Your task to perform on an android device: change text size in settings app Image 0: 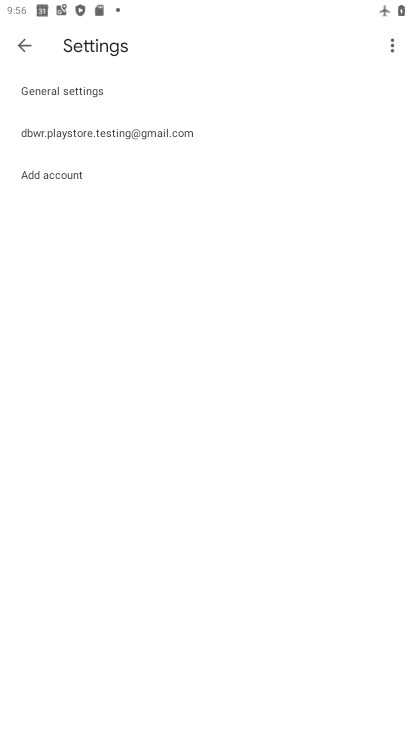
Step 0: press home button
Your task to perform on an android device: change text size in settings app Image 1: 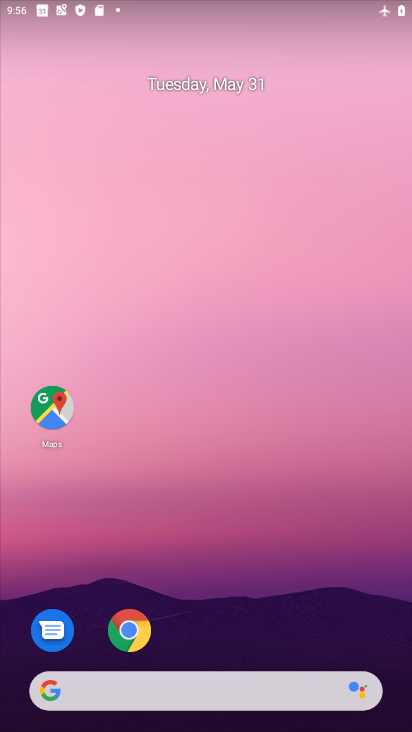
Step 1: drag from (229, 481) to (229, 192)
Your task to perform on an android device: change text size in settings app Image 2: 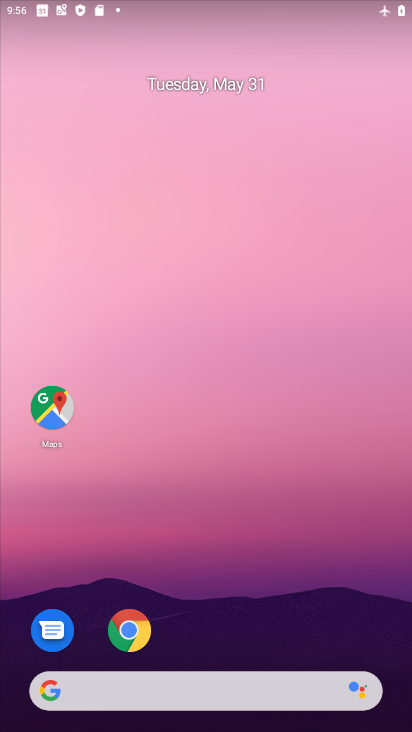
Step 2: drag from (251, 477) to (249, 183)
Your task to perform on an android device: change text size in settings app Image 3: 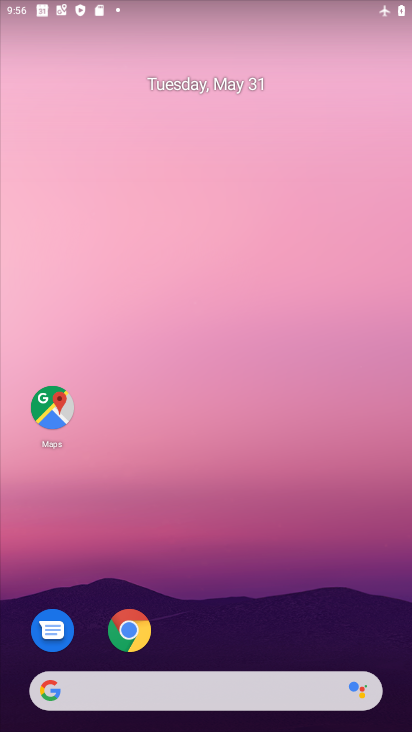
Step 3: drag from (236, 645) to (267, 144)
Your task to perform on an android device: change text size in settings app Image 4: 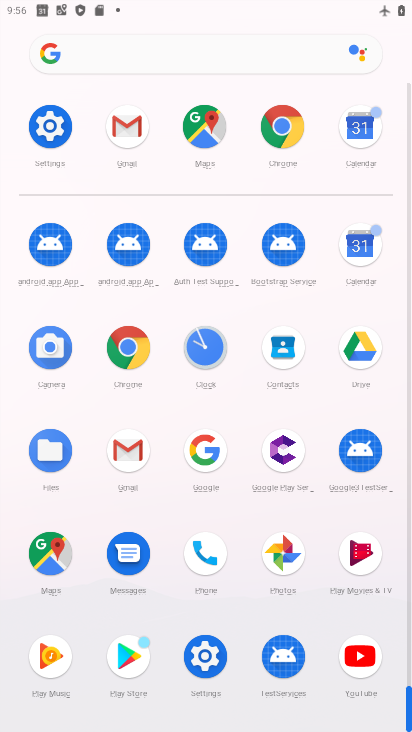
Step 4: click (202, 648)
Your task to perform on an android device: change text size in settings app Image 5: 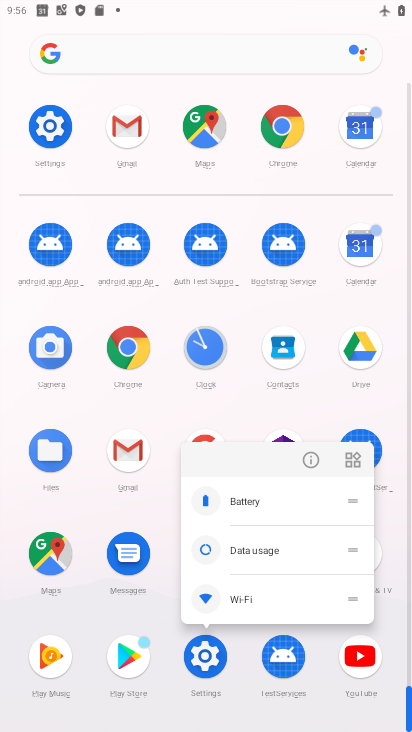
Step 5: click (198, 648)
Your task to perform on an android device: change text size in settings app Image 6: 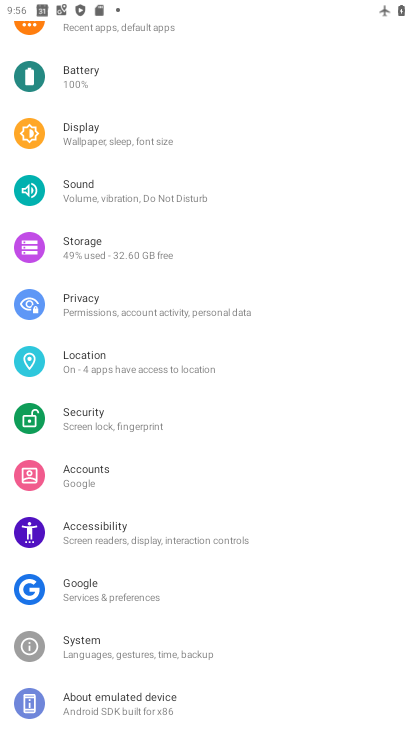
Step 6: click (143, 535)
Your task to perform on an android device: change text size in settings app Image 7: 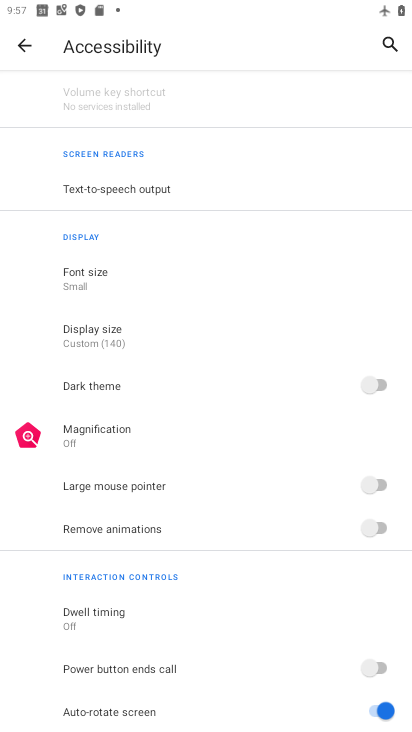
Step 7: drag from (205, 615) to (230, 290)
Your task to perform on an android device: change text size in settings app Image 8: 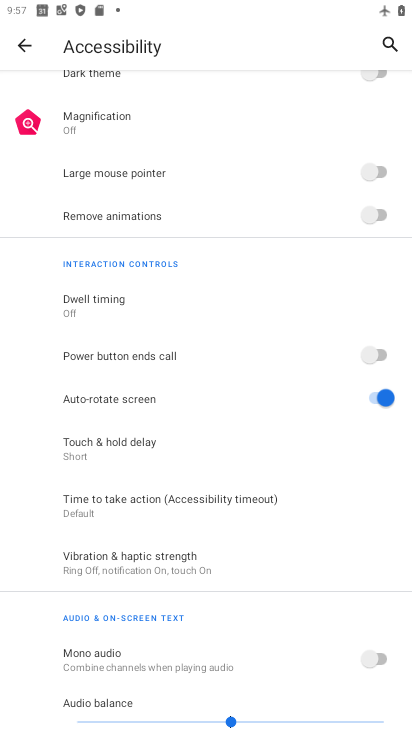
Step 8: click (31, 52)
Your task to perform on an android device: change text size in settings app Image 9: 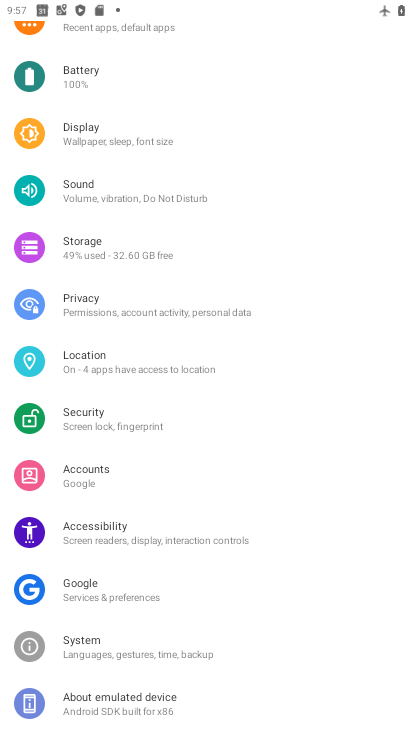
Step 9: click (138, 313)
Your task to perform on an android device: change text size in settings app Image 10: 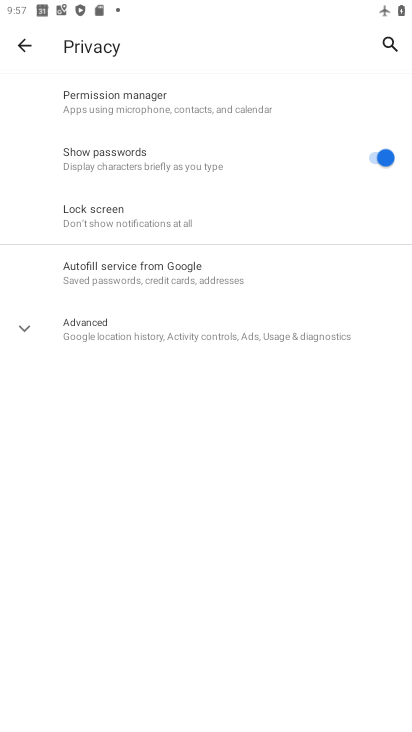
Step 10: click (23, 42)
Your task to perform on an android device: change text size in settings app Image 11: 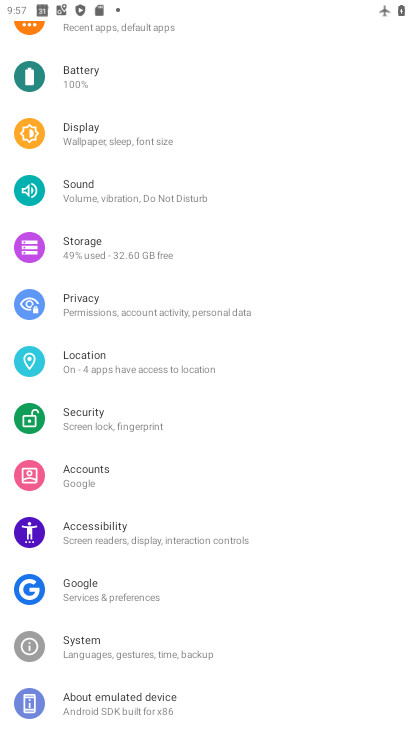
Step 11: click (108, 649)
Your task to perform on an android device: change text size in settings app Image 12: 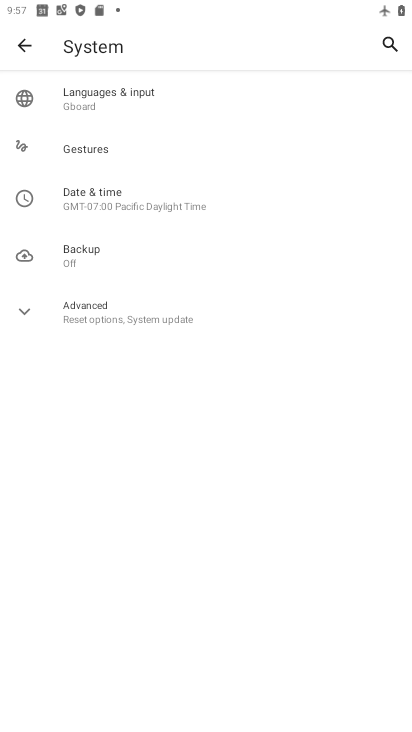
Step 12: click (75, 108)
Your task to perform on an android device: change text size in settings app Image 13: 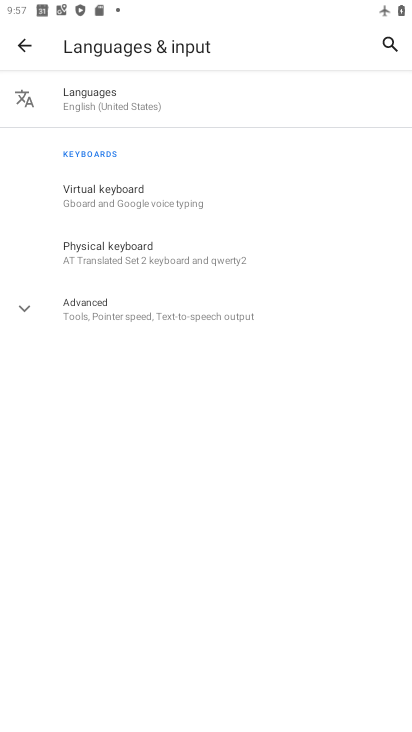
Step 13: click (37, 44)
Your task to perform on an android device: change text size in settings app Image 14: 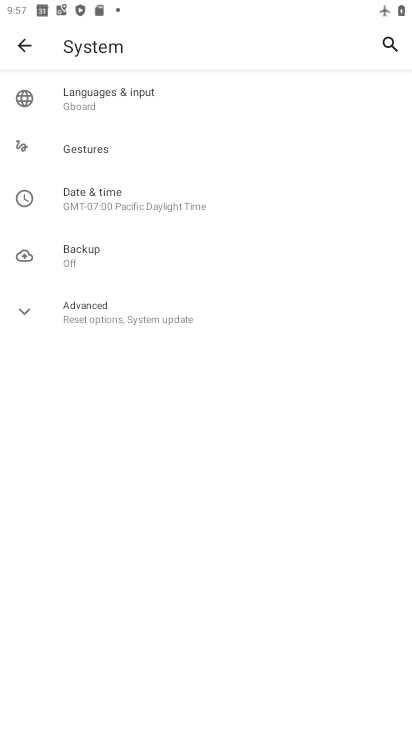
Step 14: click (22, 44)
Your task to perform on an android device: change text size in settings app Image 15: 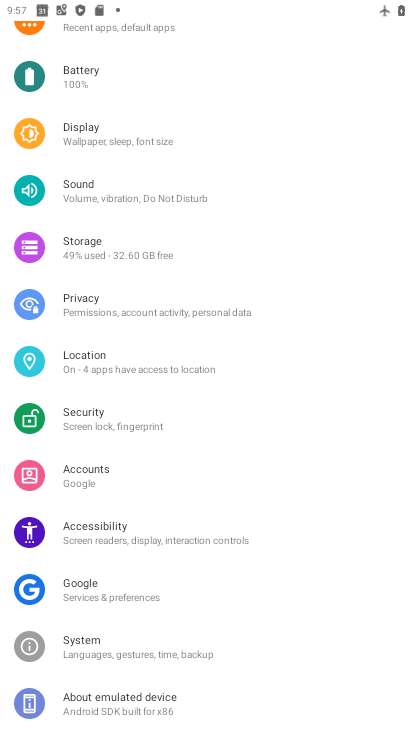
Step 15: click (130, 418)
Your task to perform on an android device: change text size in settings app Image 16: 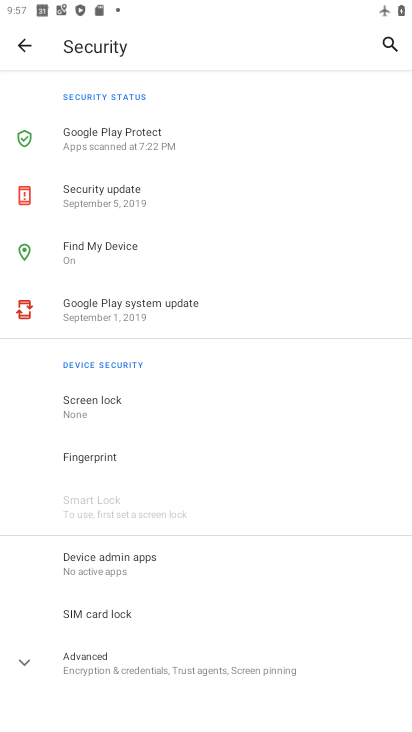
Step 16: click (21, 47)
Your task to perform on an android device: change text size in settings app Image 17: 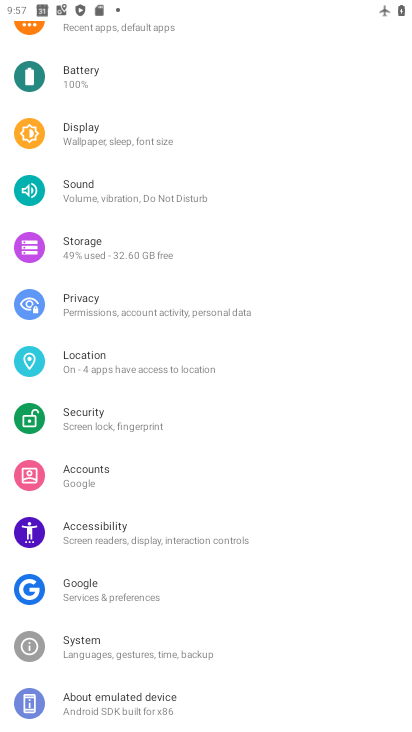
Step 17: drag from (136, 659) to (174, 493)
Your task to perform on an android device: change text size in settings app Image 18: 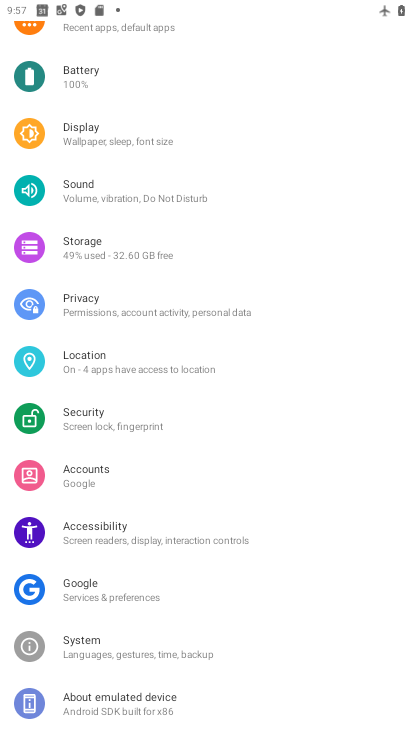
Step 18: click (112, 641)
Your task to perform on an android device: change text size in settings app Image 19: 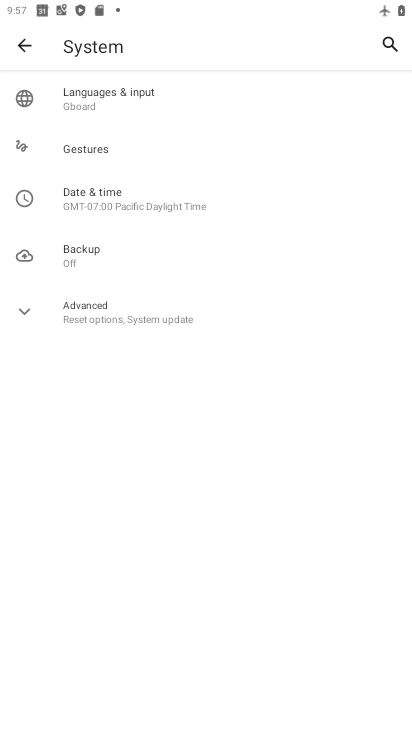
Step 19: click (25, 40)
Your task to perform on an android device: change text size in settings app Image 20: 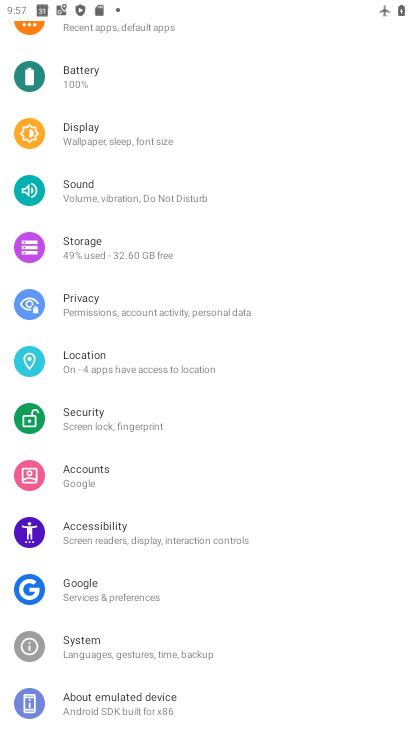
Step 20: click (94, 471)
Your task to perform on an android device: change text size in settings app Image 21: 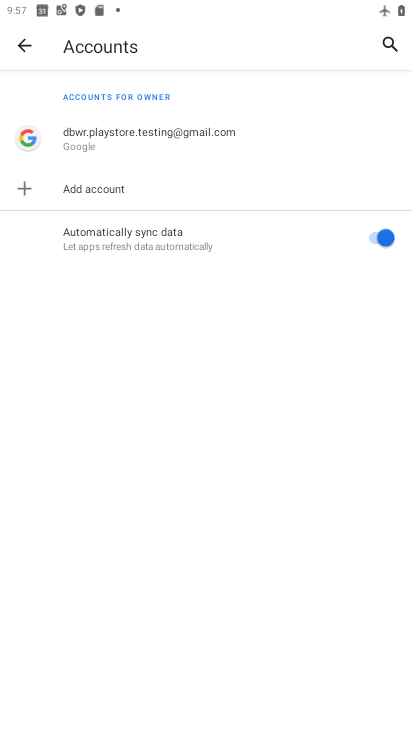
Step 21: click (17, 38)
Your task to perform on an android device: change text size in settings app Image 22: 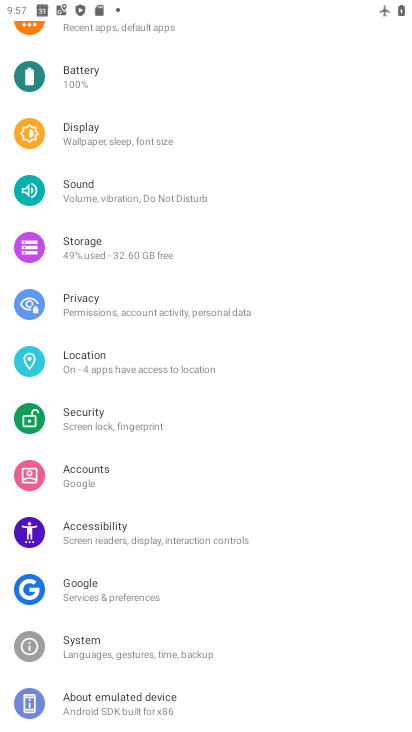
Step 22: task complete